Your task to perform on an android device: change notification settings in the gmail app Image 0: 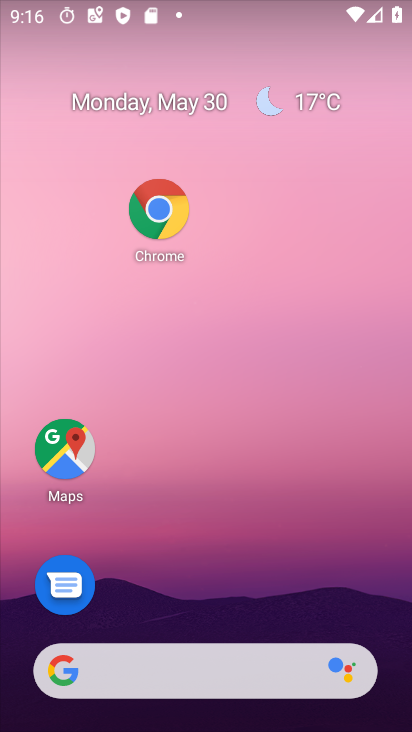
Step 0: drag from (253, 431) to (173, 43)
Your task to perform on an android device: change notification settings in the gmail app Image 1: 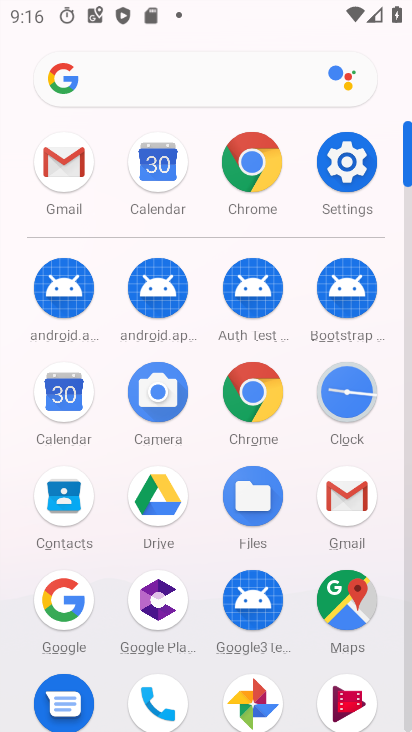
Step 1: drag from (216, 509) to (232, 233)
Your task to perform on an android device: change notification settings in the gmail app Image 2: 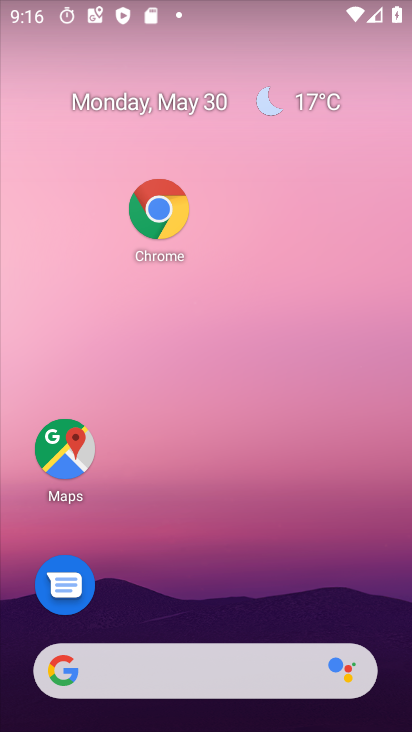
Step 2: drag from (197, 648) to (274, 166)
Your task to perform on an android device: change notification settings in the gmail app Image 3: 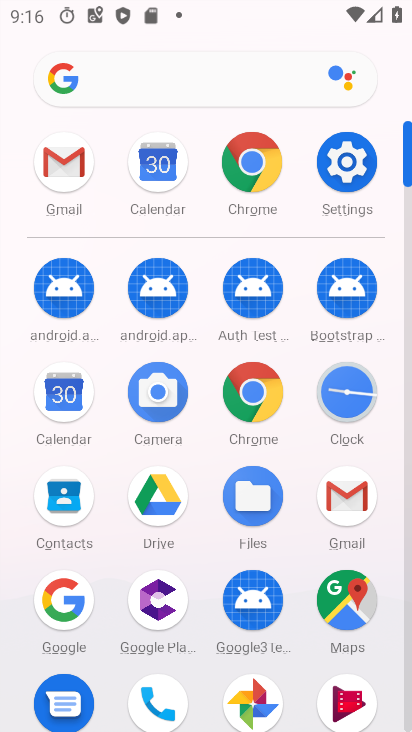
Step 3: click (337, 498)
Your task to perform on an android device: change notification settings in the gmail app Image 4: 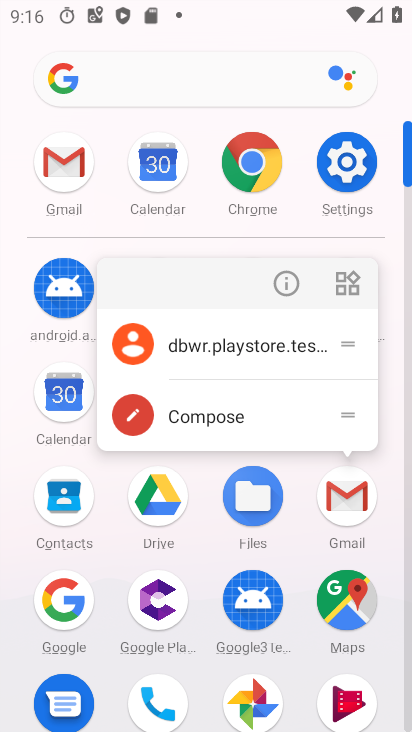
Step 4: click (203, 347)
Your task to perform on an android device: change notification settings in the gmail app Image 5: 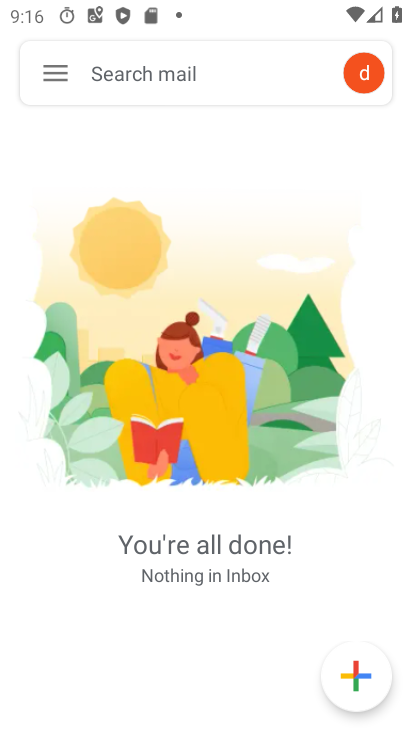
Step 5: click (60, 74)
Your task to perform on an android device: change notification settings in the gmail app Image 6: 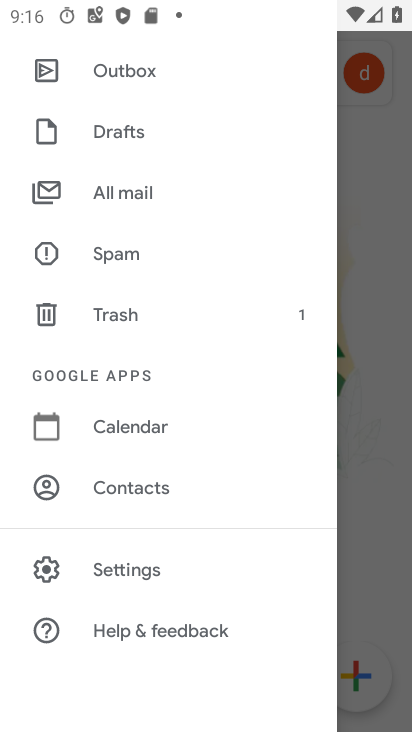
Step 6: click (136, 569)
Your task to perform on an android device: change notification settings in the gmail app Image 7: 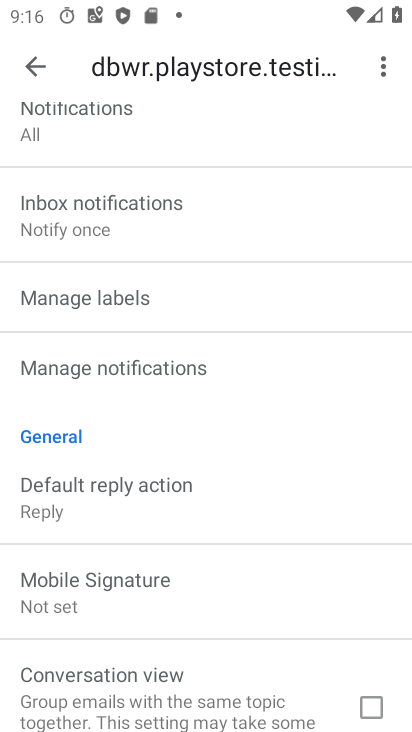
Step 7: click (148, 369)
Your task to perform on an android device: change notification settings in the gmail app Image 8: 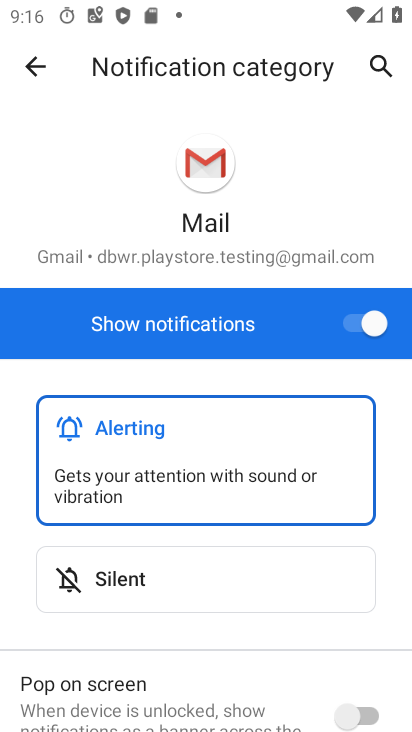
Step 8: click (329, 303)
Your task to perform on an android device: change notification settings in the gmail app Image 9: 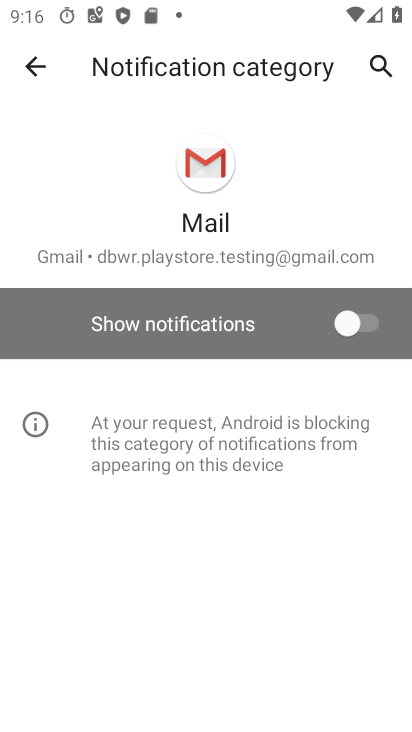
Step 9: task complete